Your task to perform on an android device: Open calendar and show me the third week of next month Image 0: 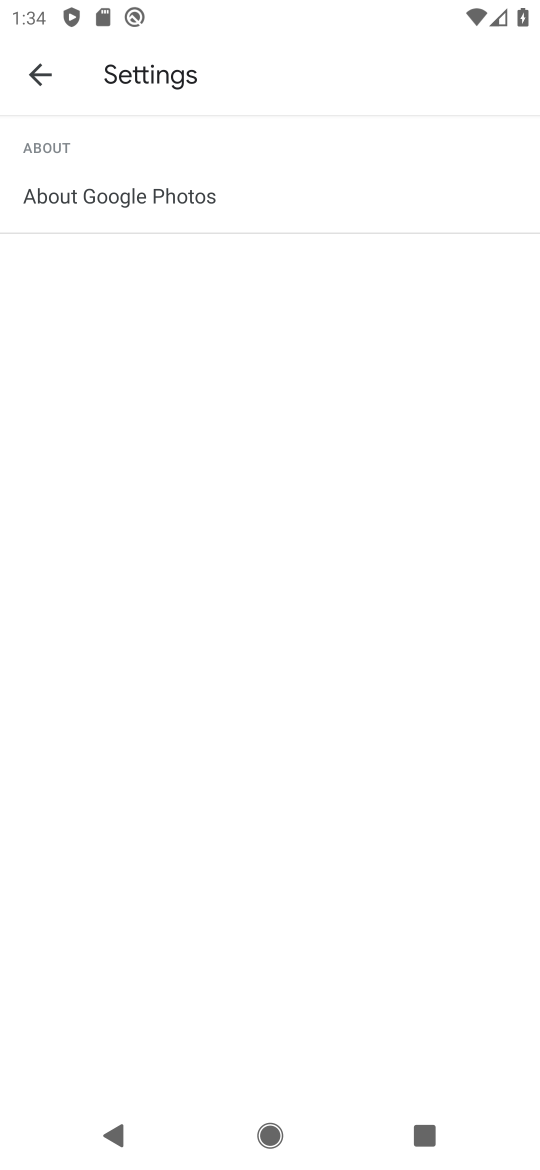
Step 0: press home button
Your task to perform on an android device: Open calendar and show me the third week of next month Image 1: 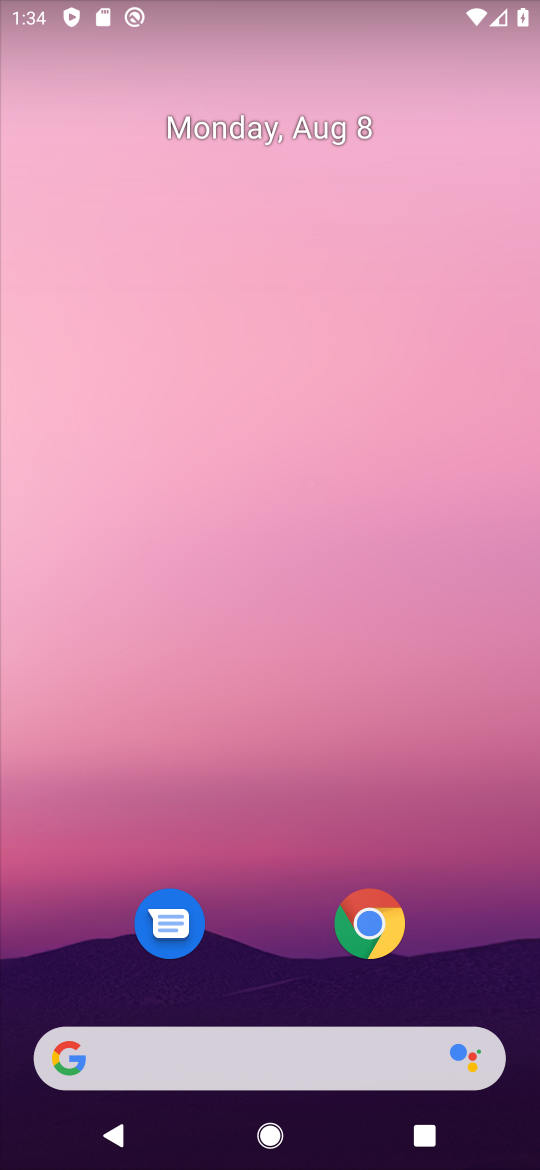
Step 1: drag from (298, 825) to (360, 292)
Your task to perform on an android device: Open calendar and show me the third week of next month Image 2: 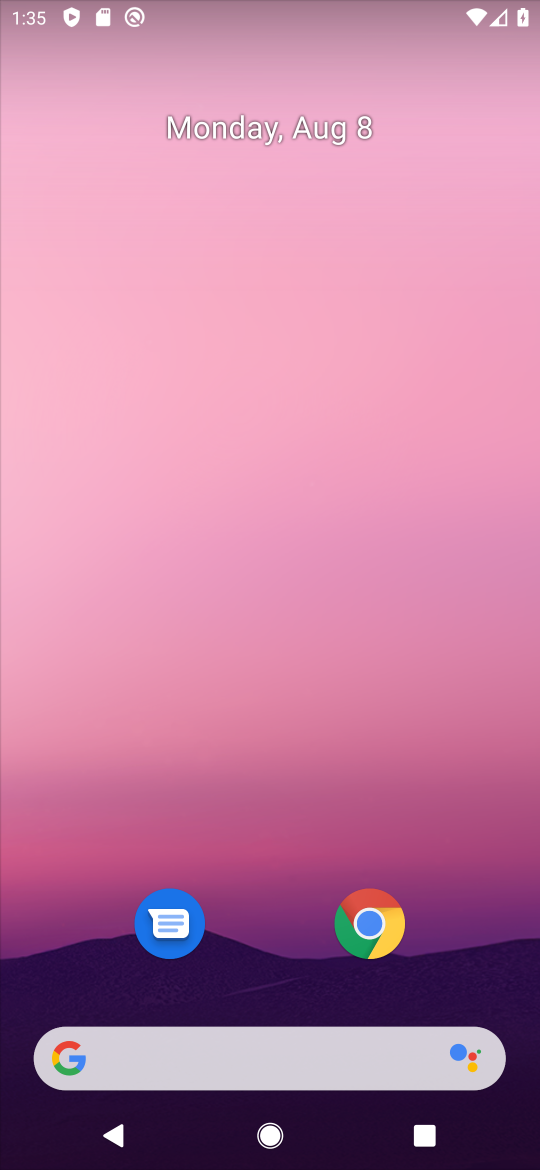
Step 2: drag from (316, 796) to (431, 303)
Your task to perform on an android device: Open calendar and show me the third week of next month Image 3: 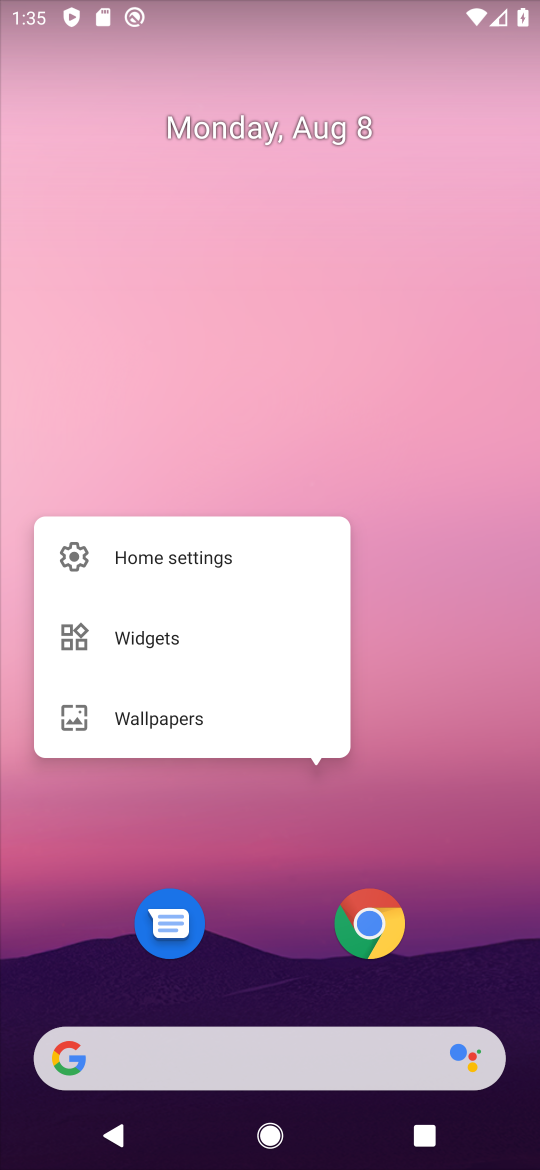
Step 3: click (434, 826)
Your task to perform on an android device: Open calendar and show me the third week of next month Image 4: 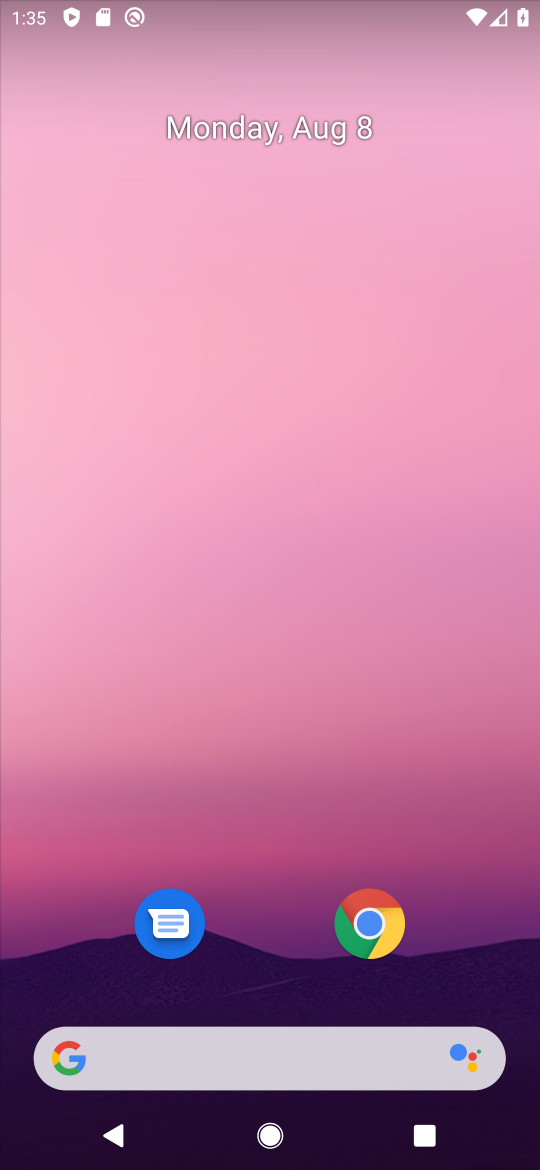
Step 4: drag from (301, 710) to (375, 180)
Your task to perform on an android device: Open calendar and show me the third week of next month Image 5: 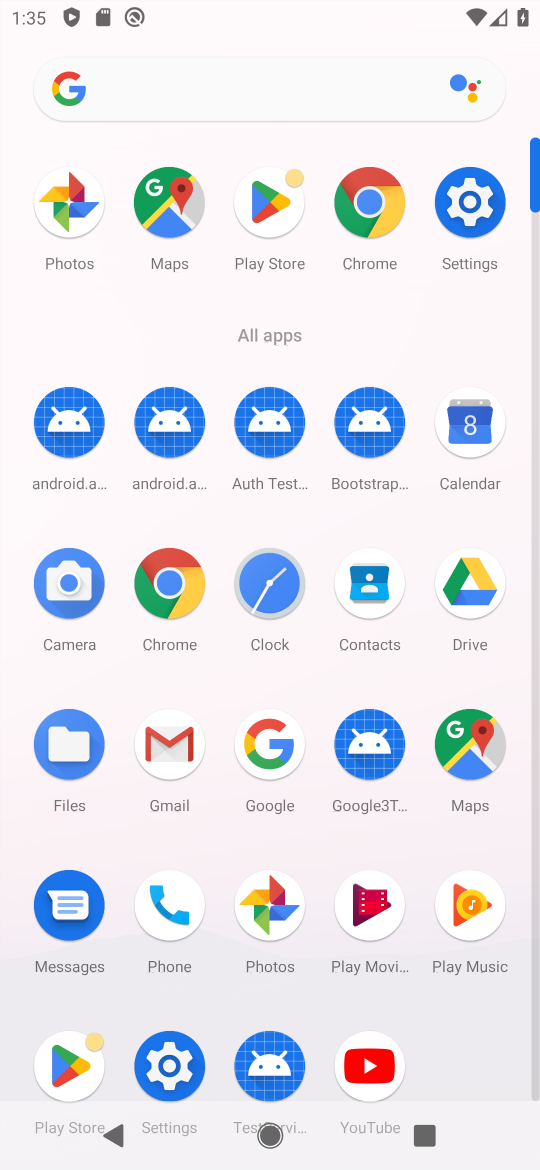
Step 5: click (475, 443)
Your task to perform on an android device: Open calendar and show me the third week of next month Image 6: 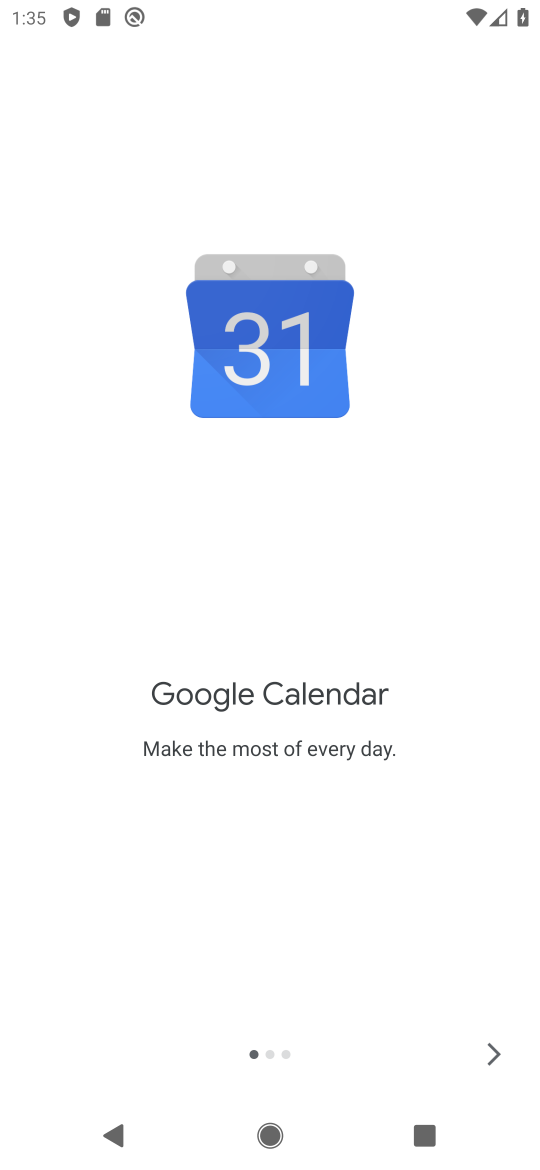
Step 6: click (500, 1052)
Your task to perform on an android device: Open calendar and show me the third week of next month Image 7: 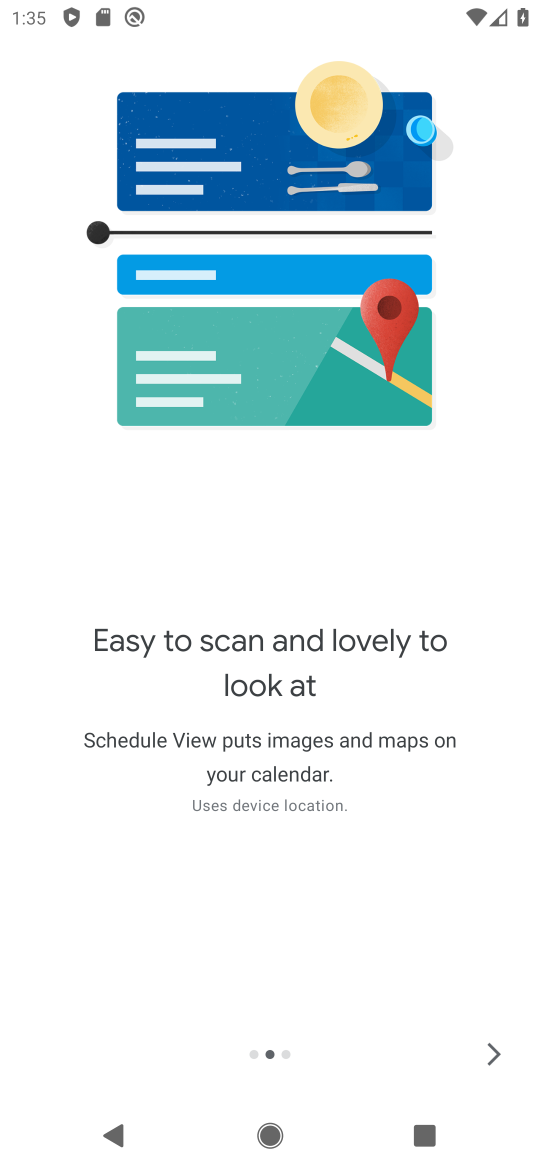
Step 7: click (500, 1052)
Your task to perform on an android device: Open calendar and show me the third week of next month Image 8: 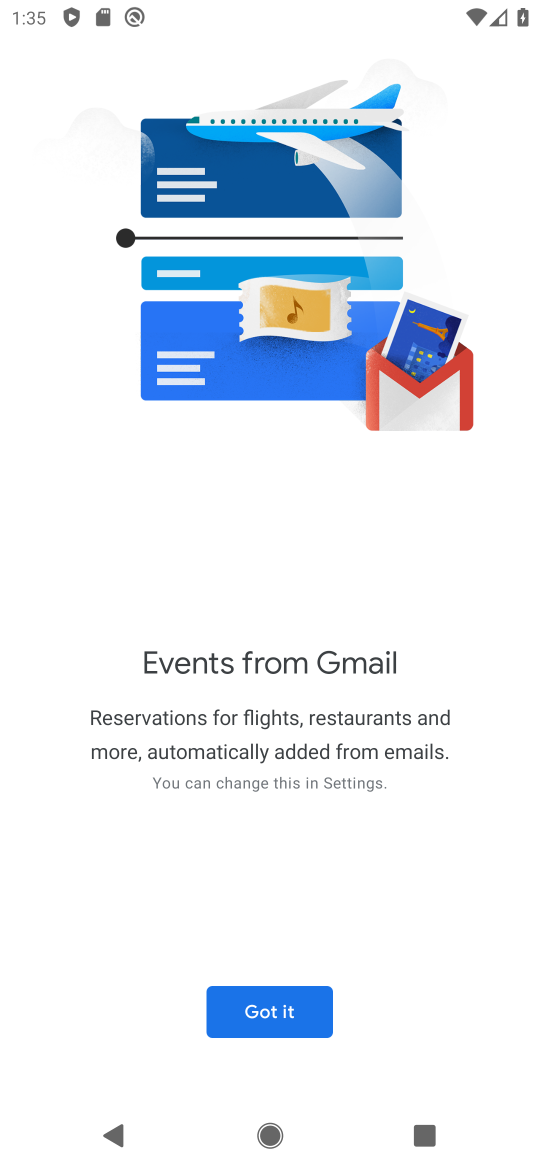
Step 8: click (500, 1052)
Your task to perform on an android device: Open calendar and show me the third week of next month Image 9: 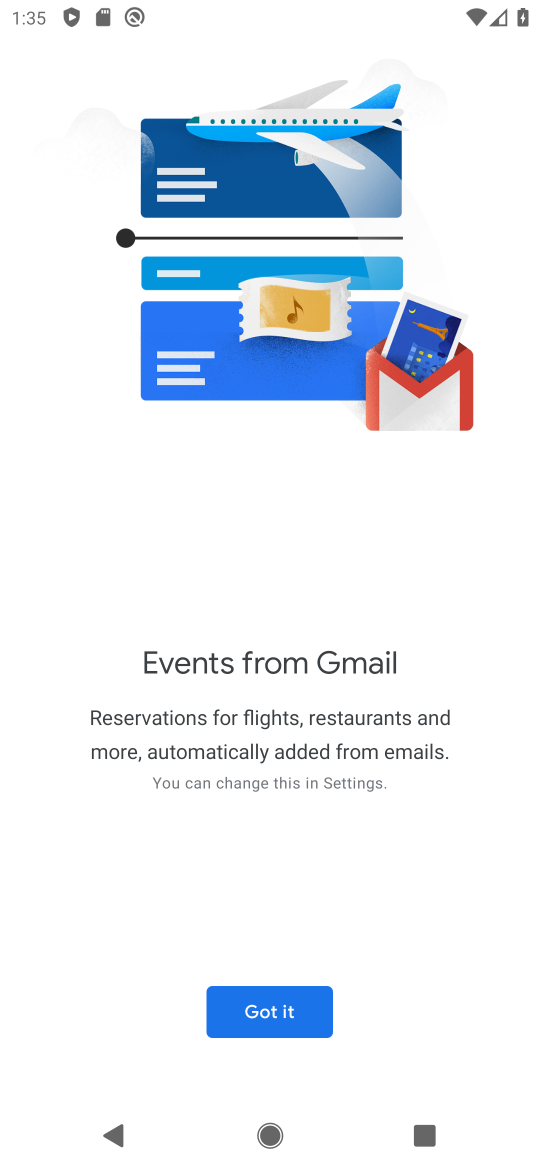
Step 9: click (500, 1052)
Your task to perform on an android device: Open calendar and show me the third week of next month Image 10: 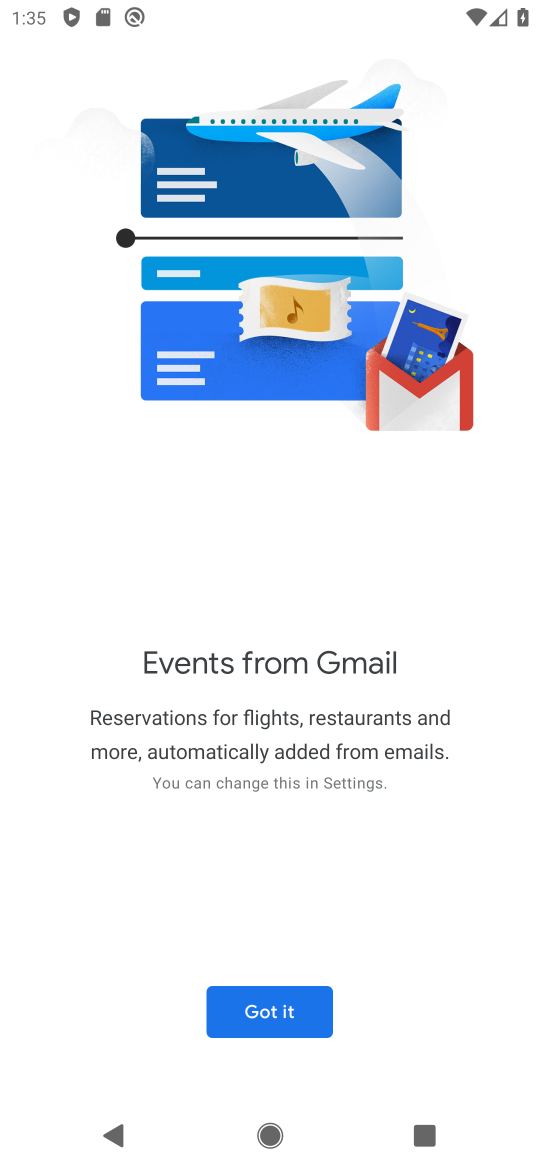
Step 10: click (267, 1032)
Your task to perform on an android device: Open calendar and show me the third week of next month Image 11: 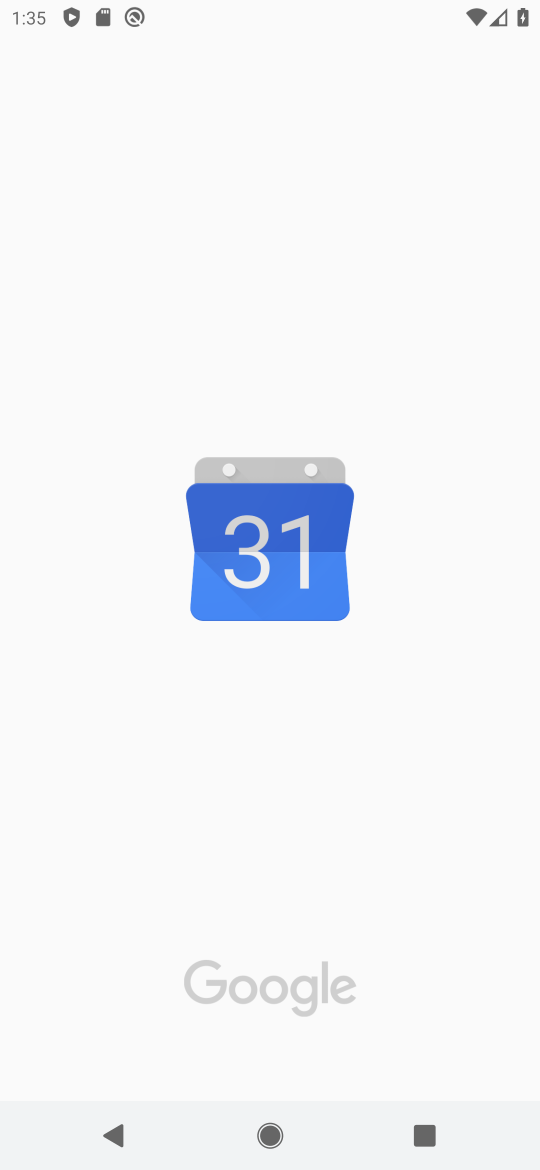
Step 11: click (272, 1017)
Your task to perform on an android device: Open calendar and show me the third week of next month Image 12: 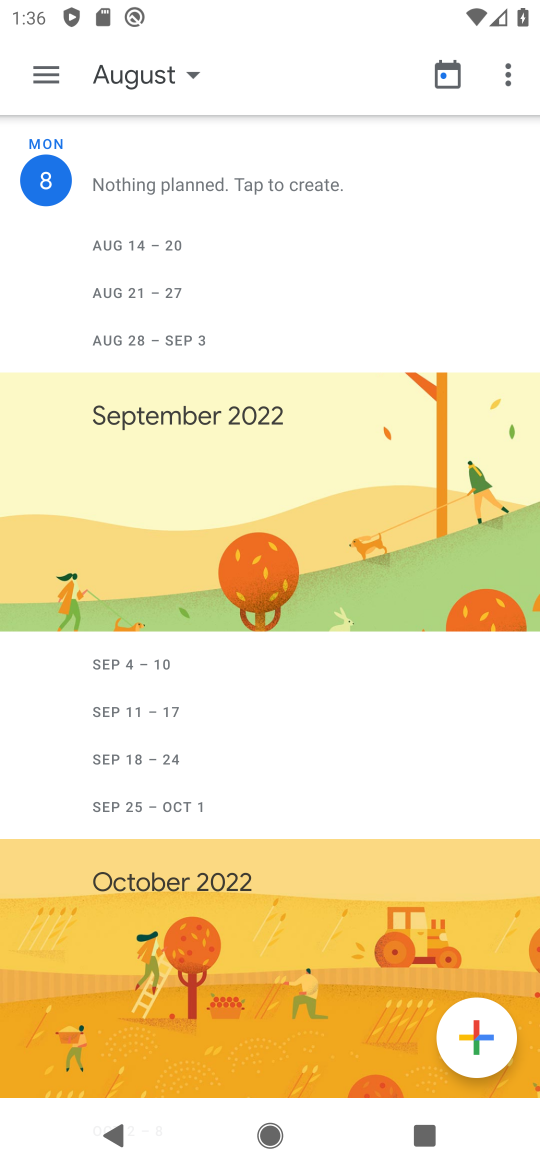
Step 12: task complete